Your task to perform on an android device: Open the web browser Image 0: 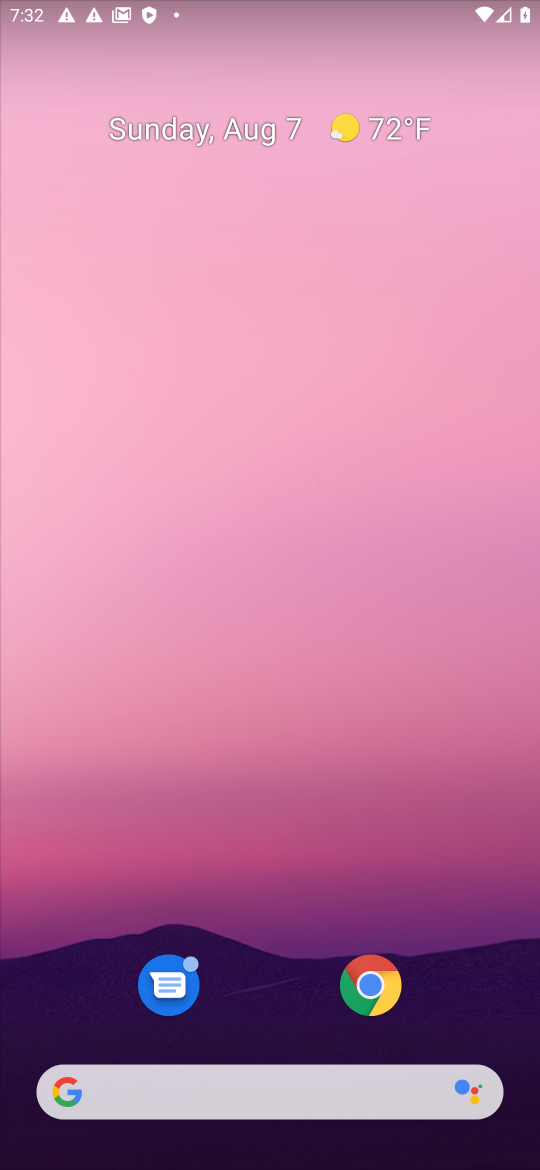
Step 0: drag from (243, 1057) to (317, 234)
Your task to perform on an android device: Open the web browser Image 1: 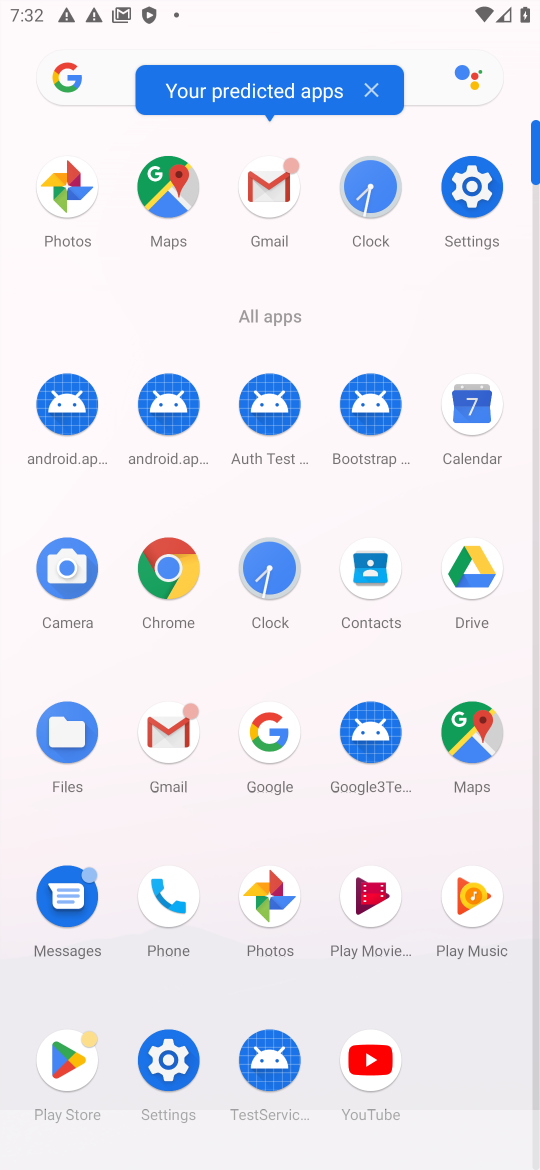
Step 1: click (165, 558)
Your task to perform on an android device: Open the web browser Image 2: 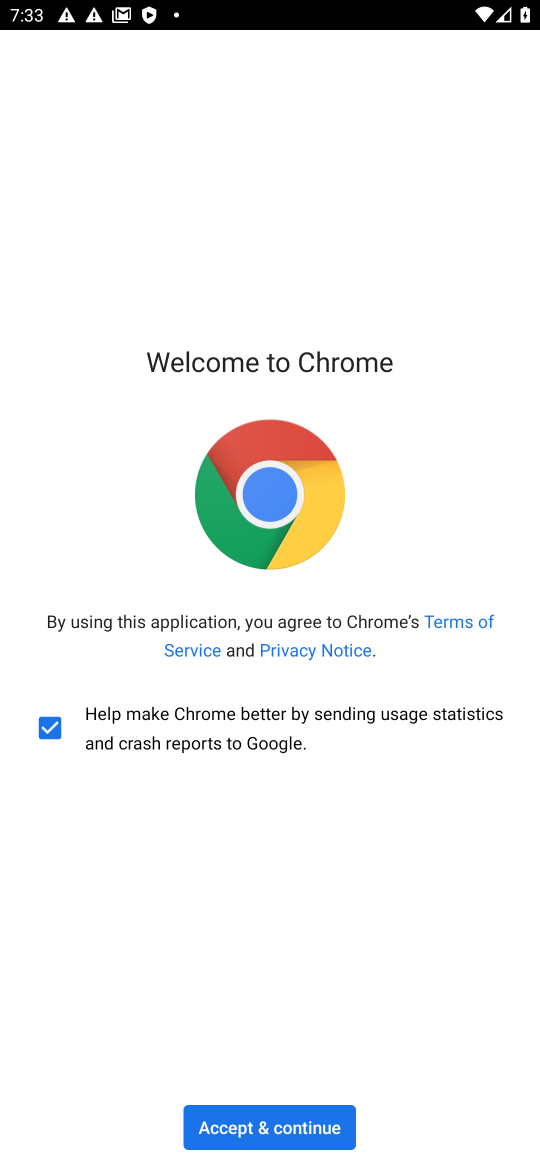
Step 2: click (340, 1130)
Your task to perform on an android device: Open the web browser Image 3: 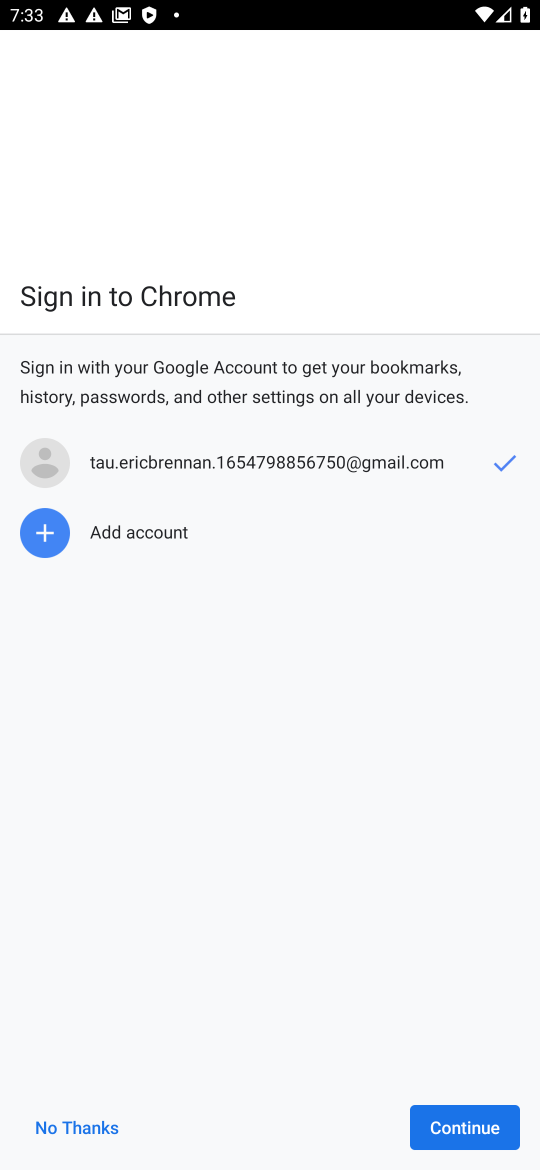
Step 3: click (525, 1126)
Your task to perform on an android device: Open the web browser Image 4: 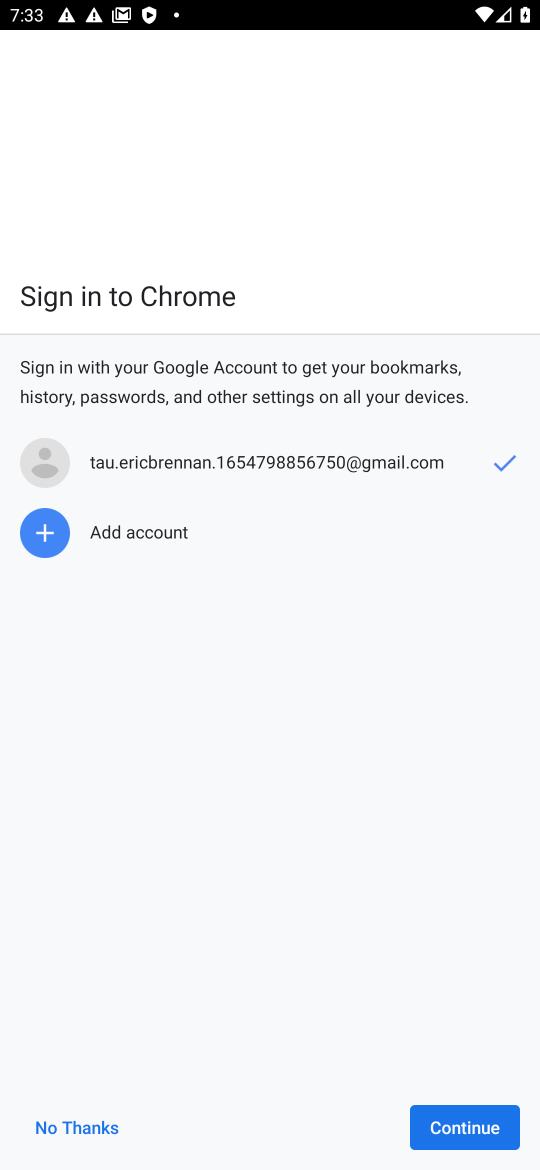
Step 4: click (466, 1116)
Your task to perform on an android device: Open the web browser Image 5: 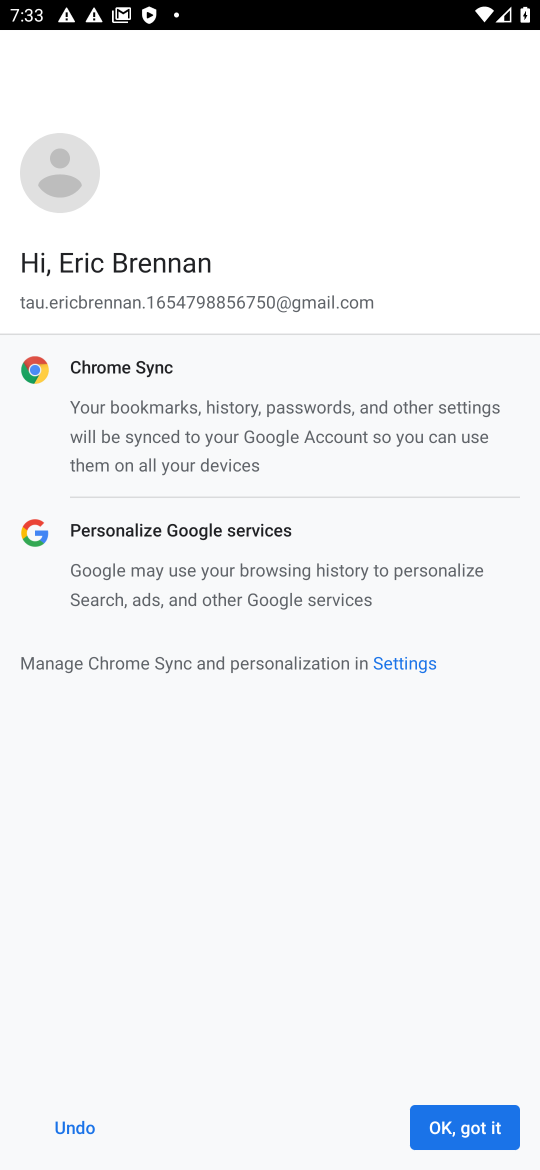
Step 5: click (466, 1116)
Your task to perform on an android device: Open the web browser Image 6: 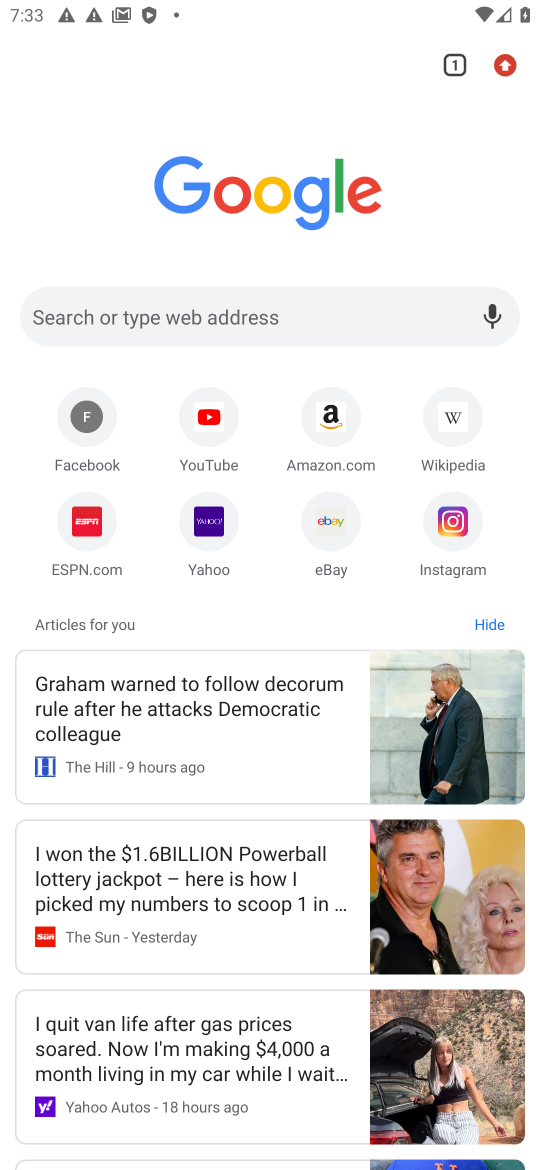
Step 6: task complete